Your task to perform on an android device: change notification settings in the gmail app Image 0: 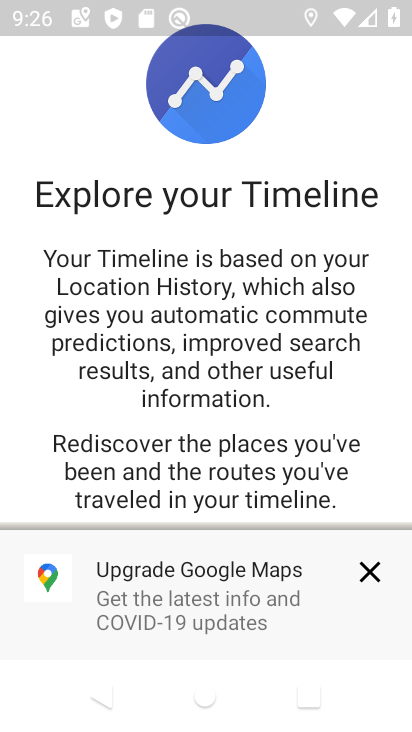
Step 0: press home button
Your task to perform on an android device: change notification settings in the gmail app Image 1: 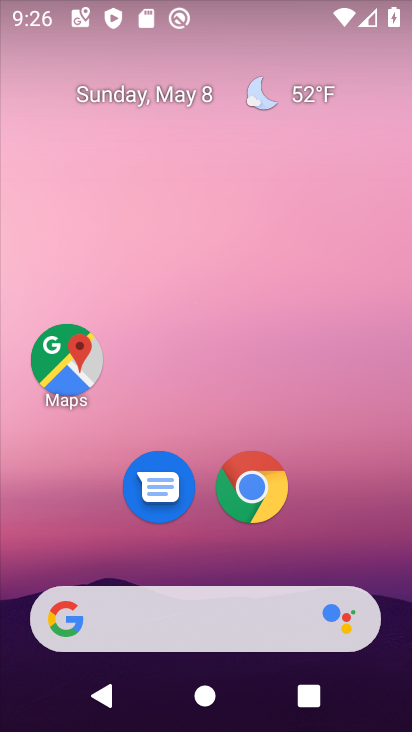
Step 1: drag from (388, 592) to (281, 80)
Your task to perform on an android device: change notification settings in the gmail app Image 2: 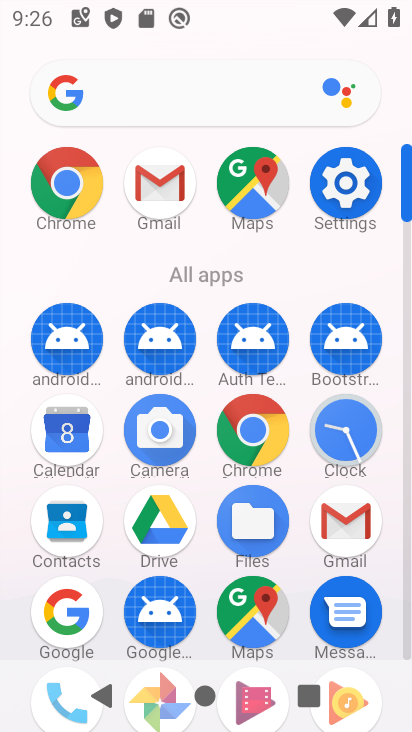
Step 2: click (354, 516)
Your task to perform on an android device: change notification settings in the gmail app Image 3: 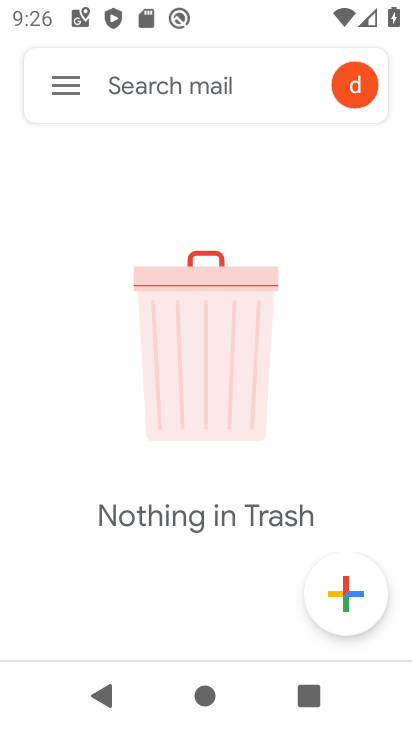
Step 3: click (53, 83)
Your task to perform on an android device: change notification settings in the gmail app Image 4: 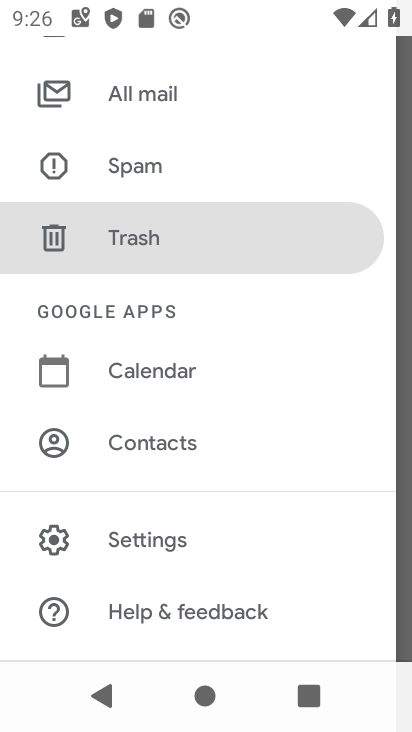
Step 4: click (173, 535)
Your task to perform on an android device: change notification settings in the gmail app Image 5: 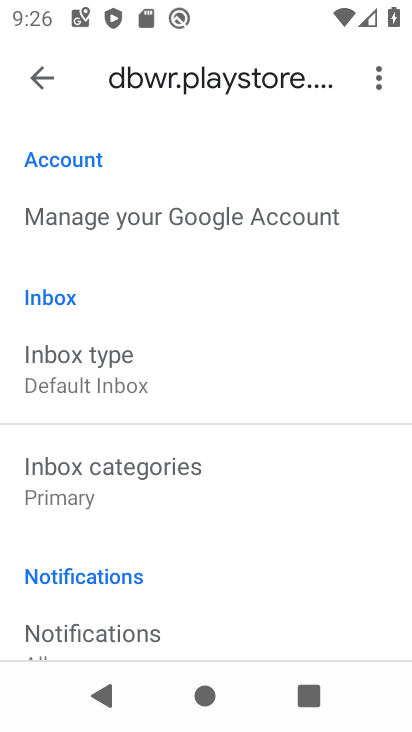
Step 5: click (108, 635)
Your task to perform on an android device: change notification settings in the gmail app Image 6: 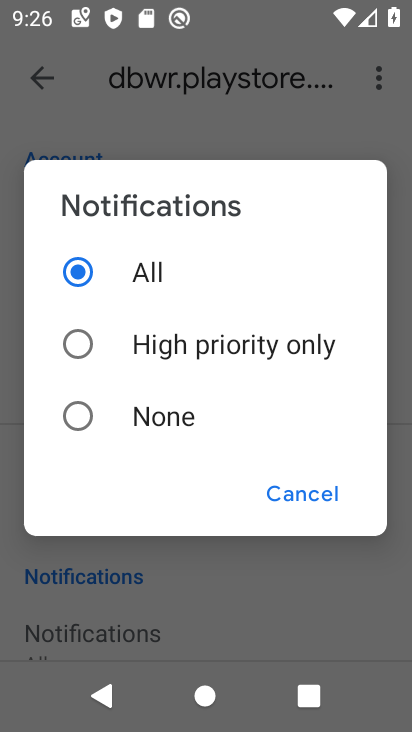
Step 6: click (156, 409)
Your task to perform on an android device: change notification settings in the gmail app Image 7: 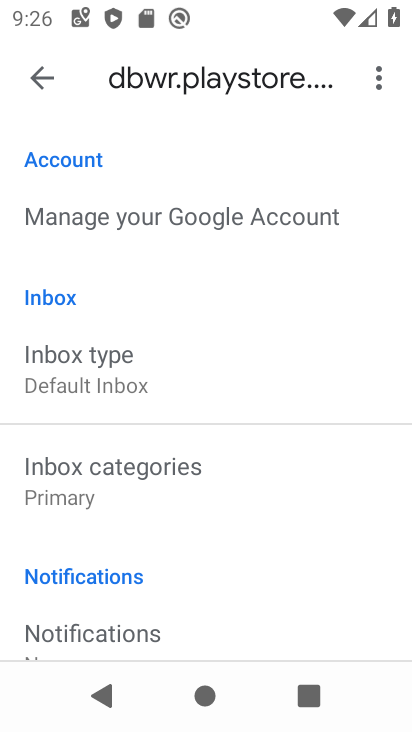
Step 7: task complete